Your task to perform on an android device: Search for pizza restaurants on Maps Image 0: 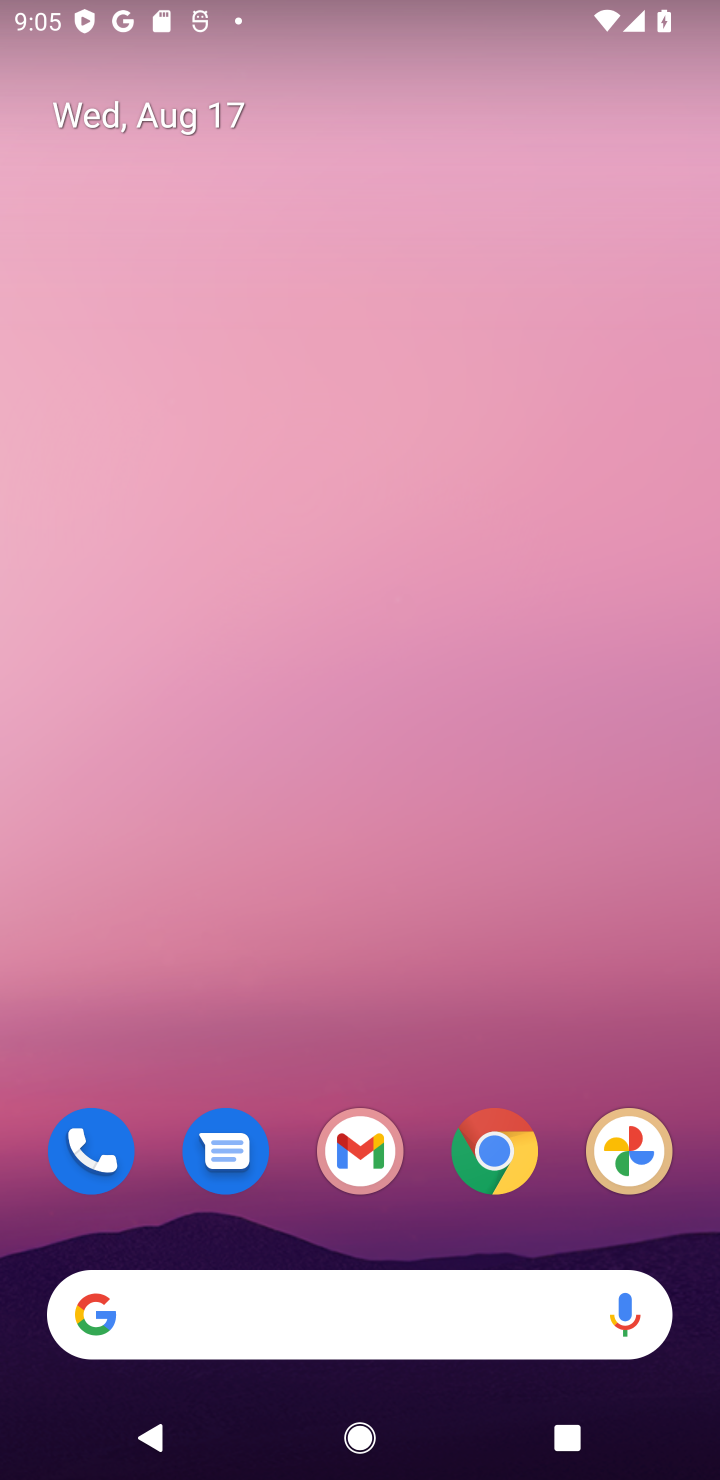
Step 0: drag from (369, 1236) to (308, 483)
Your task to perform on an android device: Search for pizza restaurants on Maps Image 1: 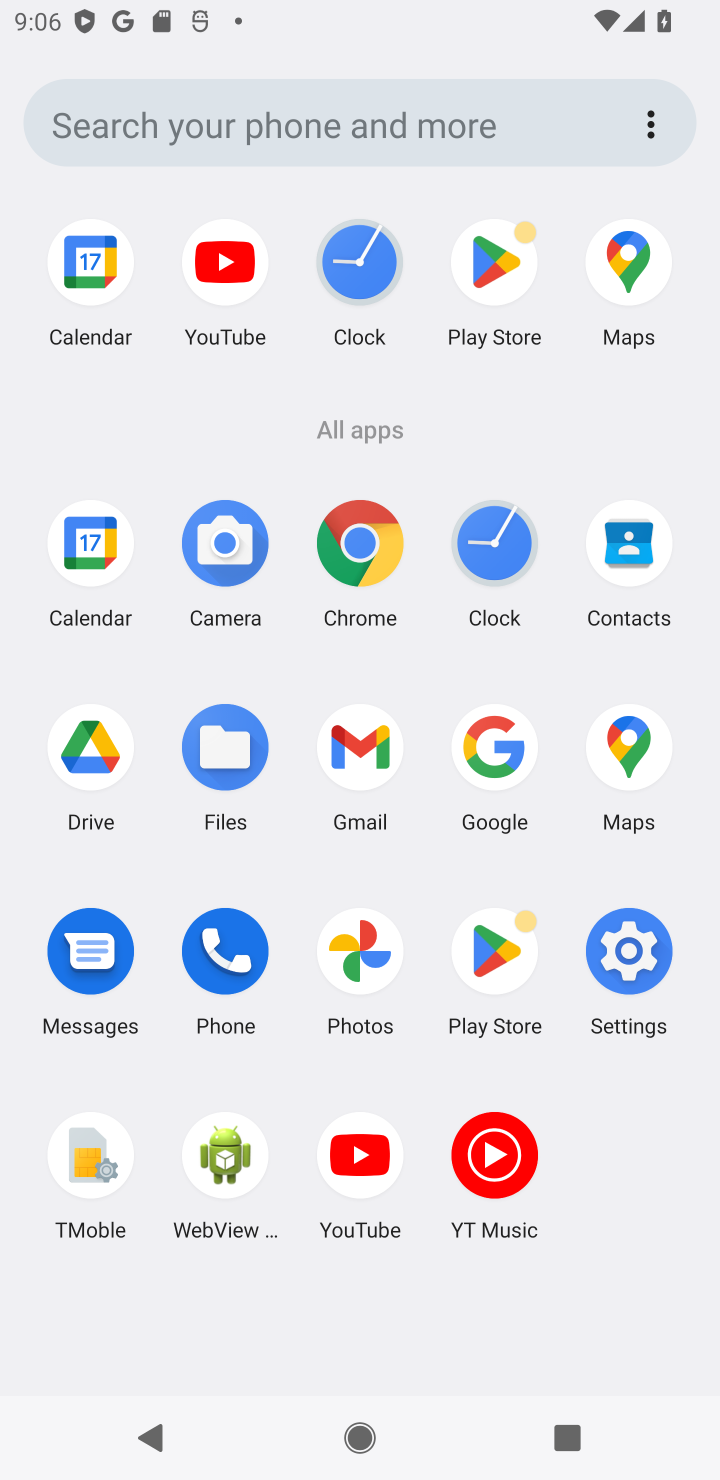
Step 1: click (625, 296)
Your task to perform on an android device: Search for pizza restaurants on Maps Image 2: 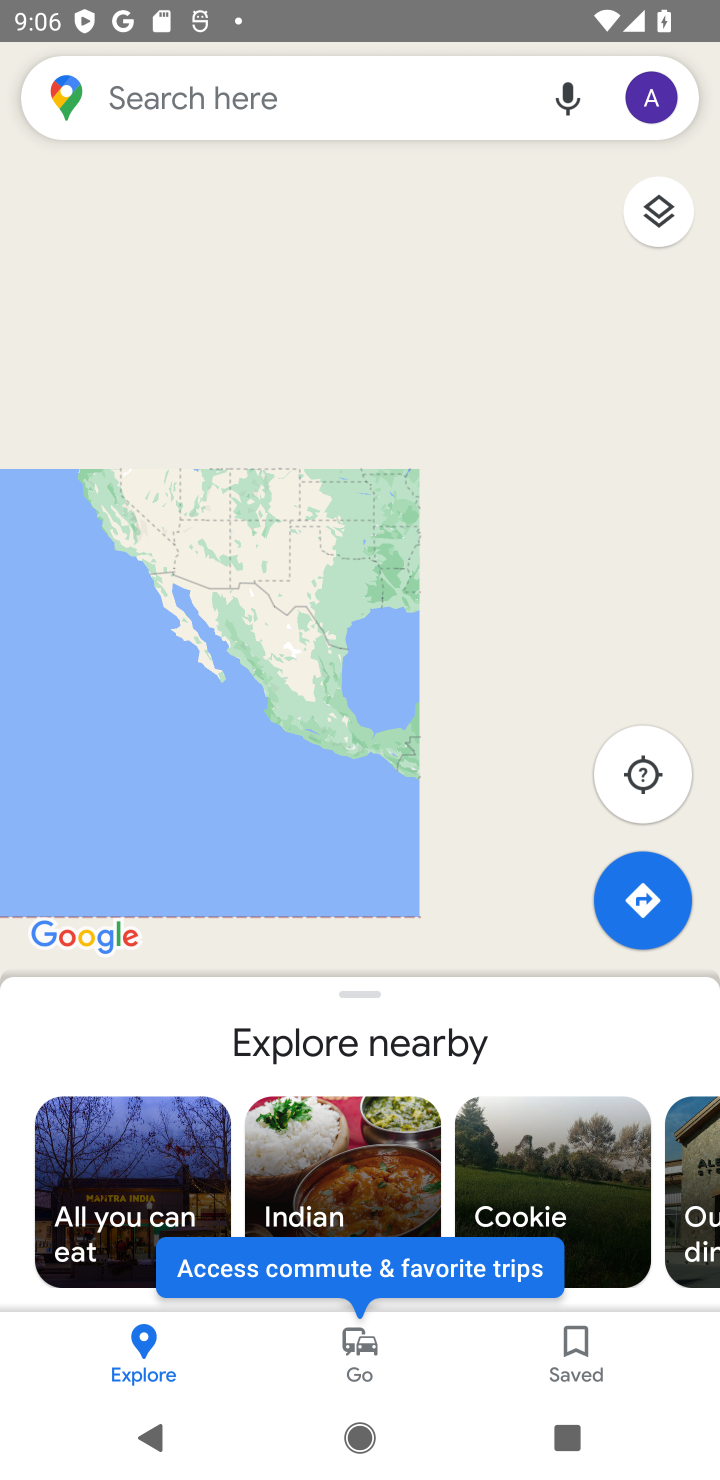
Step 2: click (289, 104)
Your task to perform on an android device: Search for pizza restaurants on Maps Image 3: 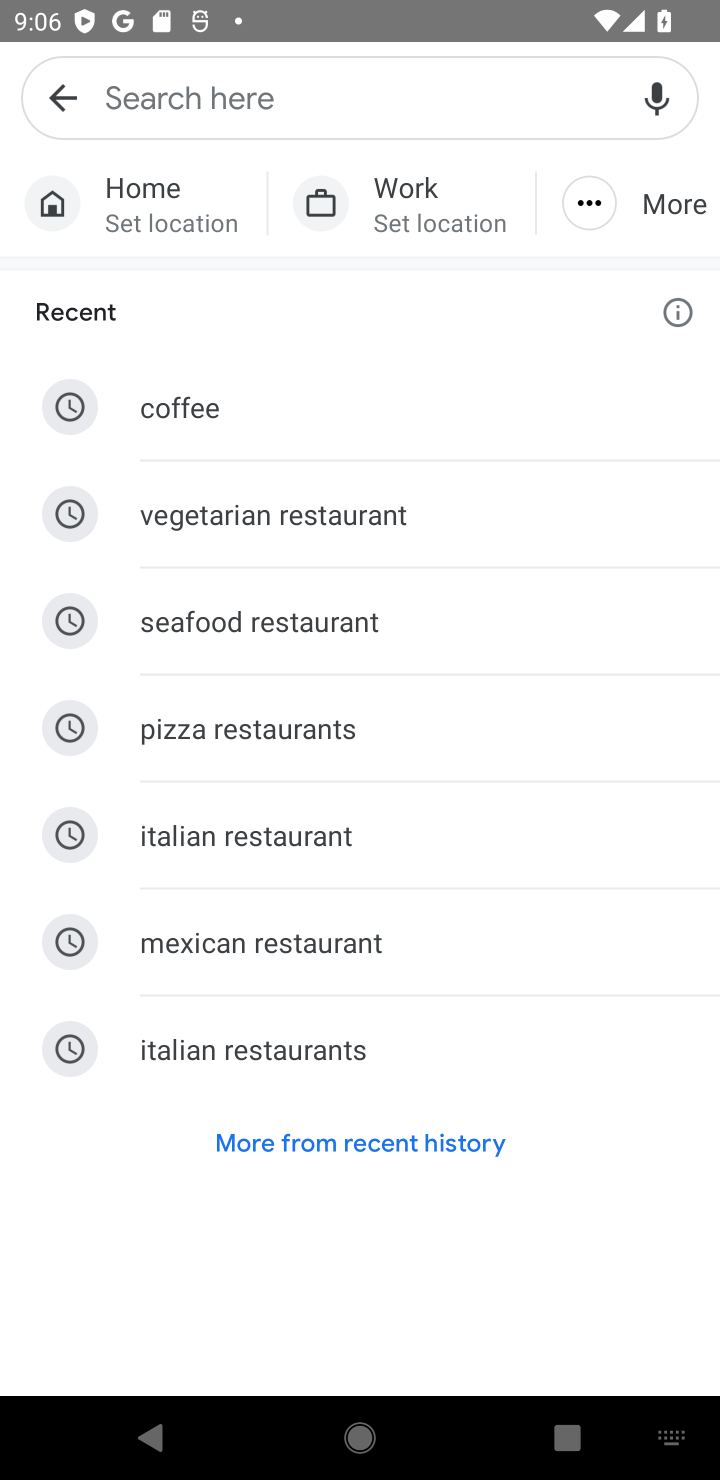
Step 3: click (308, 736)
Your task to perform on an android device: Search for pizza restaurants on Maps Image 4: 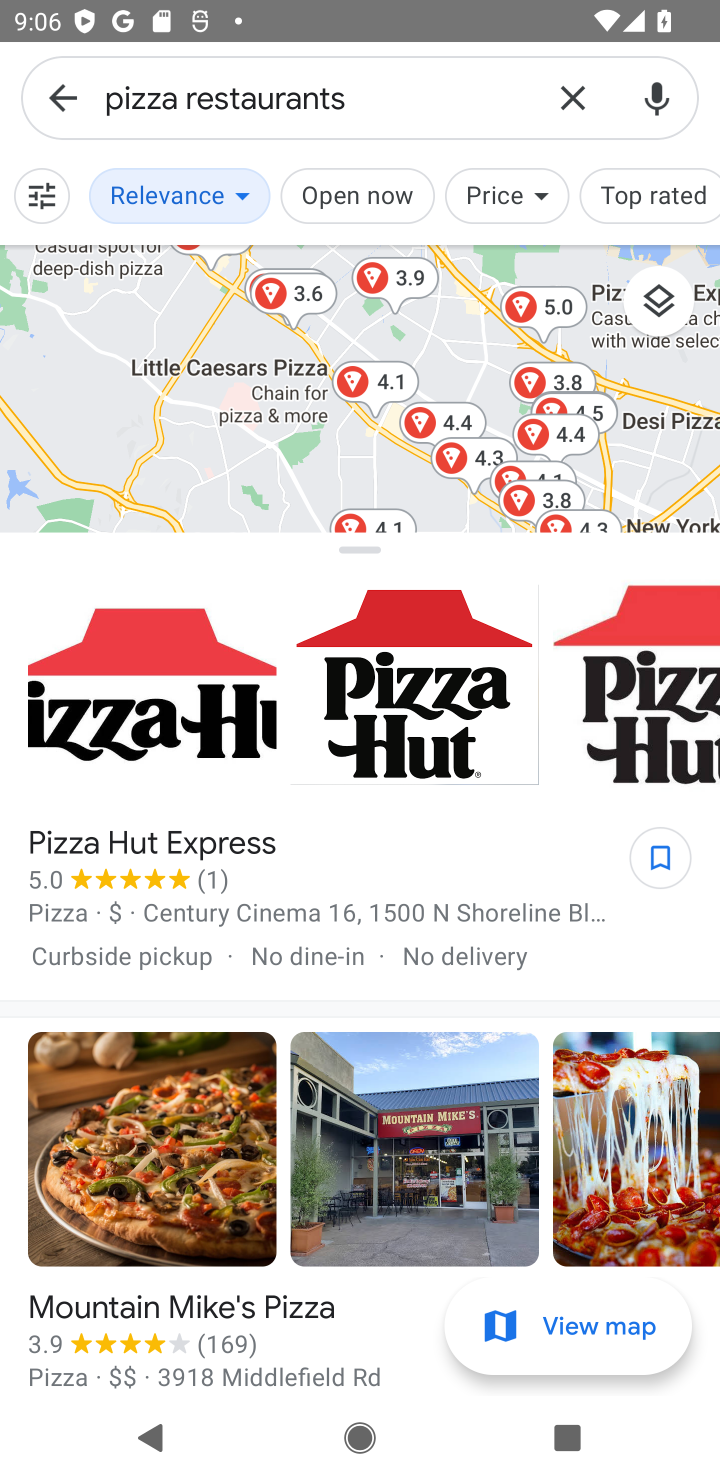
Step 4: task complete